Your task to perform on an android device: clear history in the chrome app Image 0: 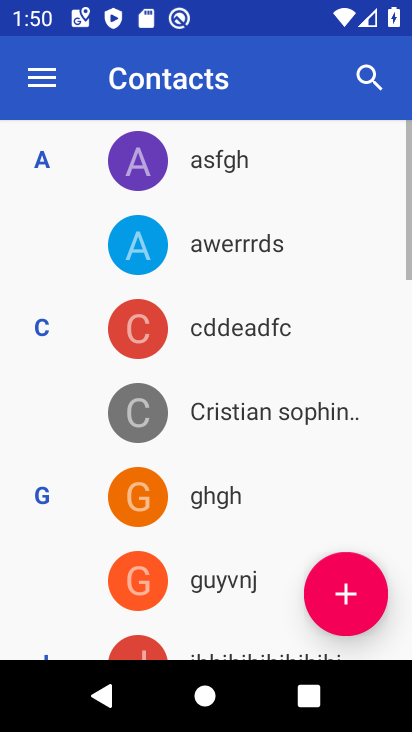
Step 0: press back button
Your task to perform on an android device: clear history in the chrome app Image 1: 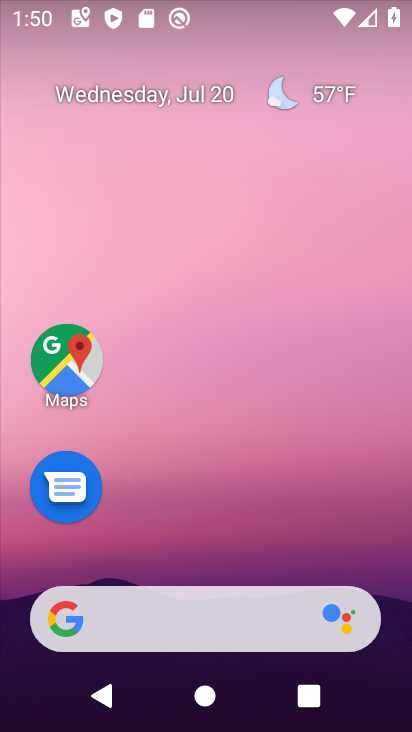
Step 1: drag from (150, 6) to (217, 23)
Your task to perform on an android device: clear history in the chrome app Image 2: 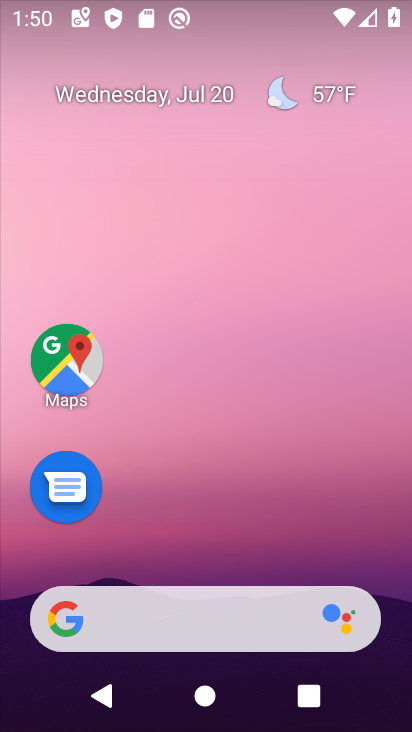
Step 2: drag from (219, 578) to (235, 20)
Your task to perform on an android device: clear history in the chrome app Image 3: 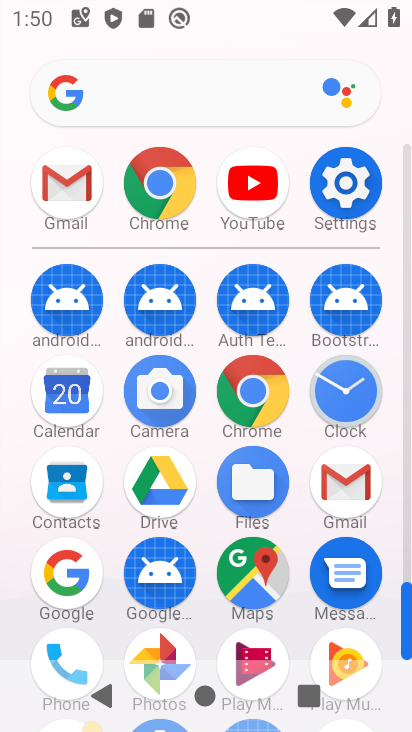
Step 3: click (177, 175)
Your task to perform on an android device: clear history in the chrome app Image 4: 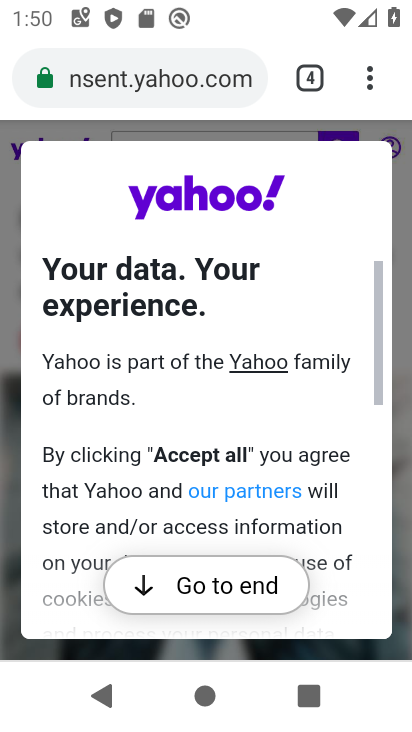
Step 4: drag from (364, 76) to (91, 432)
Your task to perform on an android device: clear history in the chrome app Image 5: 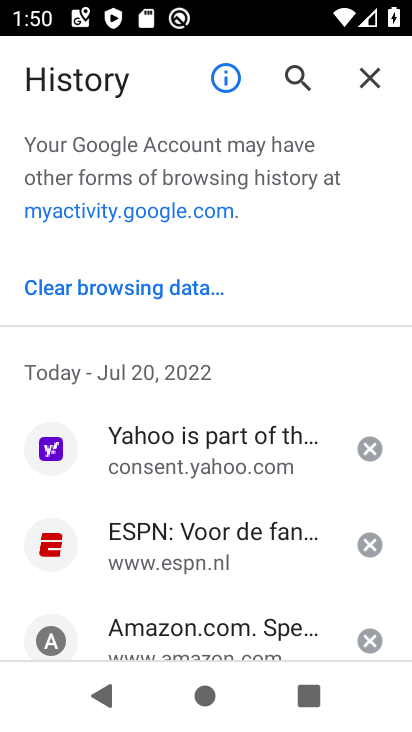
Step 5: click (84, 273)
Your task to perform on an android device: clear history in the chrome app Image 6: 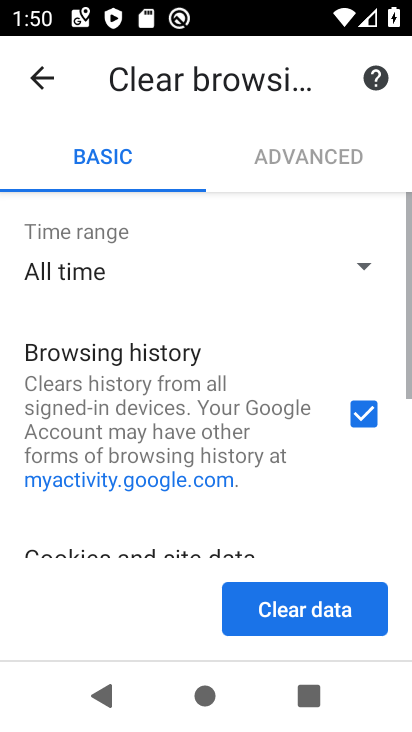
Step 6: drag from (291, 492) to (298, 619)
Your task to perform on an android device: clear history in the chrome app Image 7: 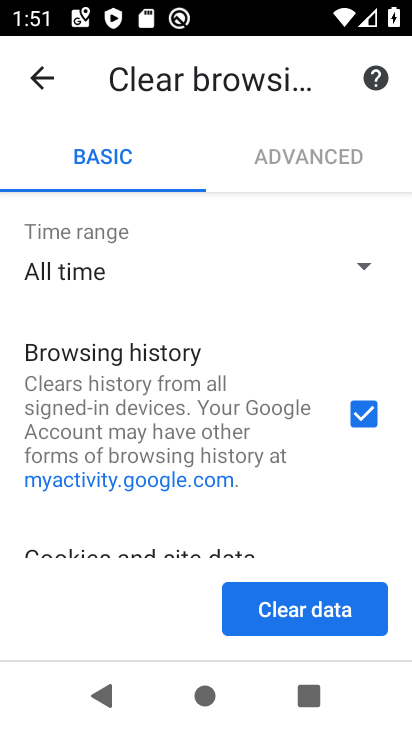
Step 7: click (303, 602)
Your task to perform on an android device: clear history in the chrome app Image 8: 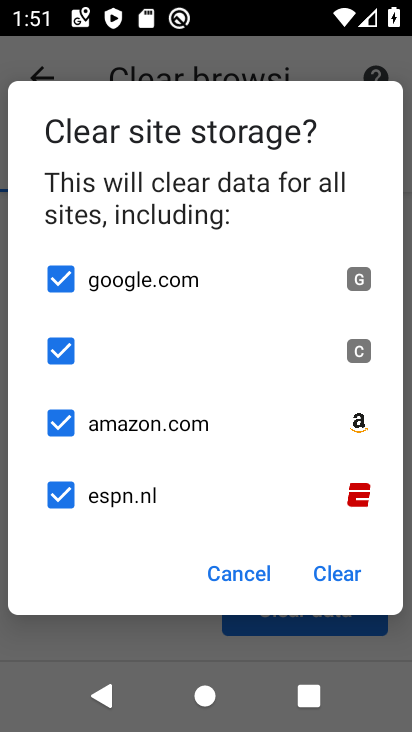
Step 8: click (339, 570)
Your task to perform on an android device: clear history in the chrome app Image 9: 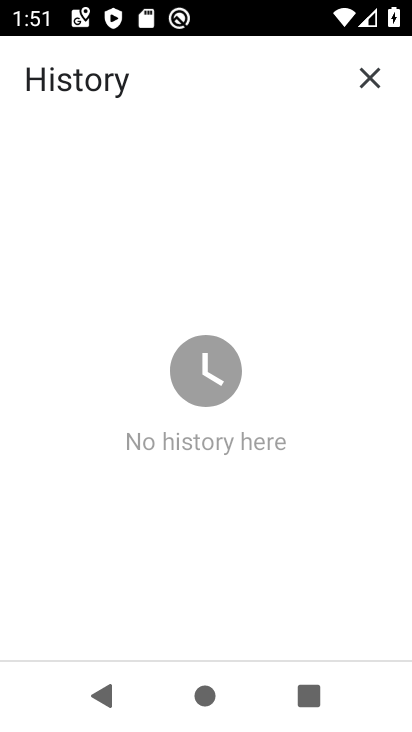
Step 9: task complete